Your task to perform on an android device: Open eBay Image 0: 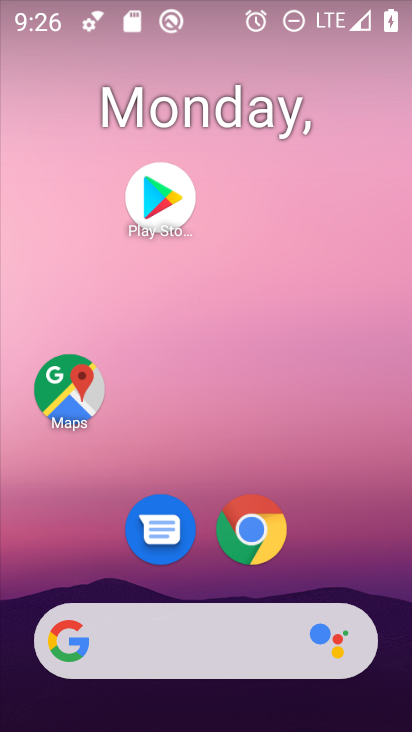
Step 0: click (241, 537)
Your task to perform on an android device: Open eBay Image 1: 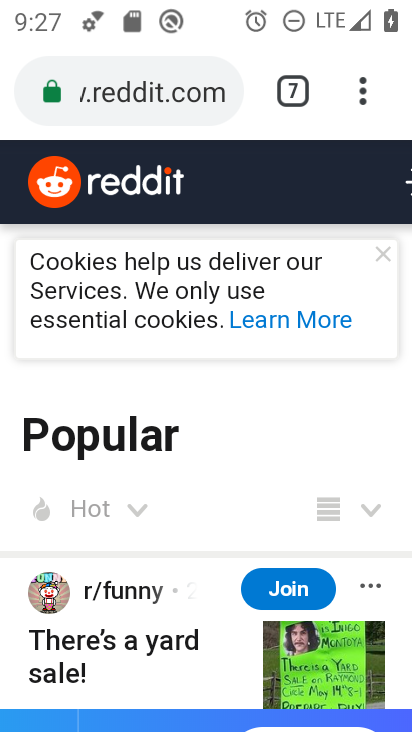
Step 1: click (359, 84)
Your task to perform on an android device: Open eBay Image 2: 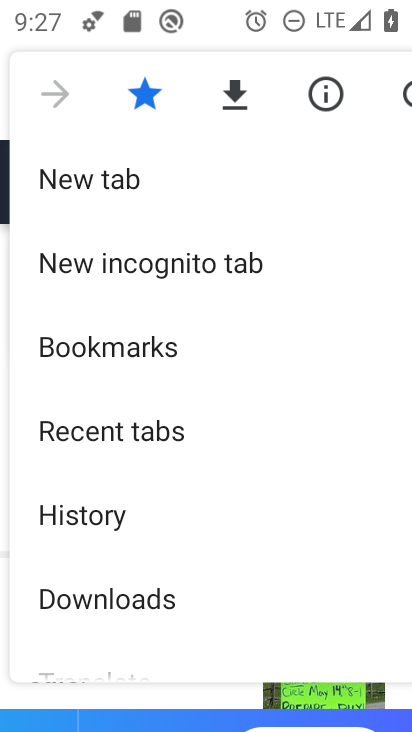
Step 2: click (115, 177)
Your task to perform on an android device: Open eBay Image 3: 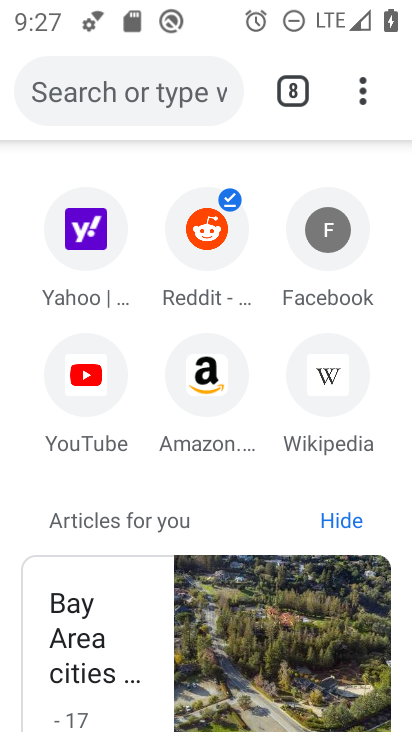
Step 3: click (124, 79)
Your task to perform on an android device: Open eBay Image 4: 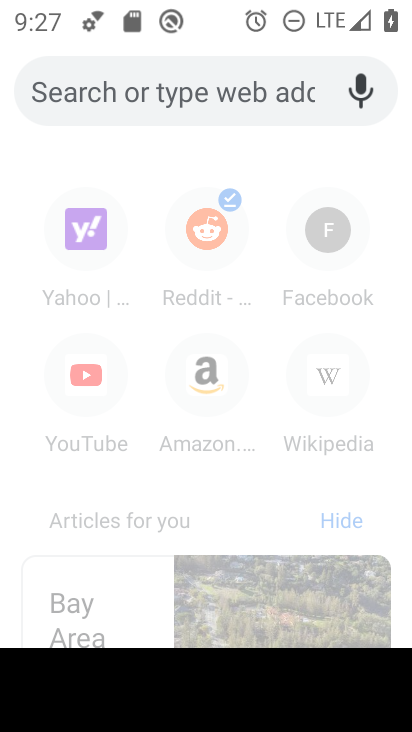
Step 4: type "ebay"
Your task to perform on an android device: Open eBay Image 5: 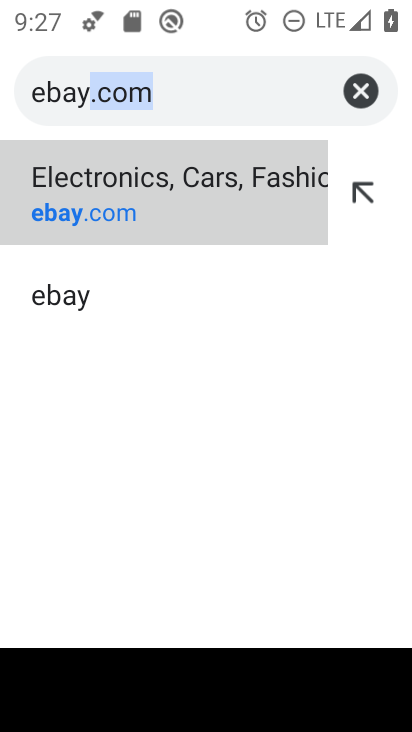
Step 5: click (146, 184)
Your task to perform on an android device: Open eBay Image 6: 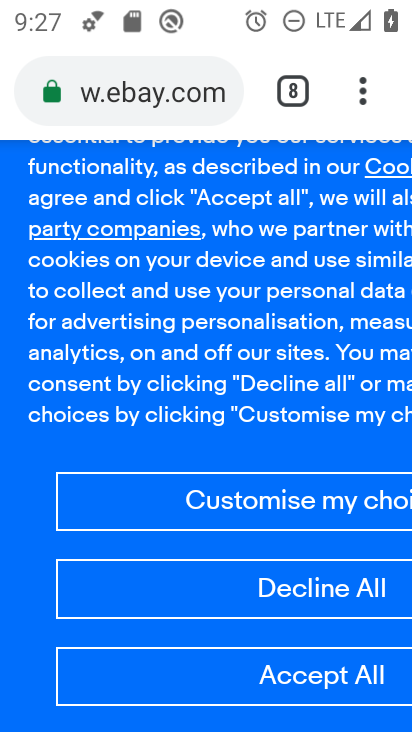
Step 6: task complete